Your task to perform on an android device: Open my contact list Image 0: 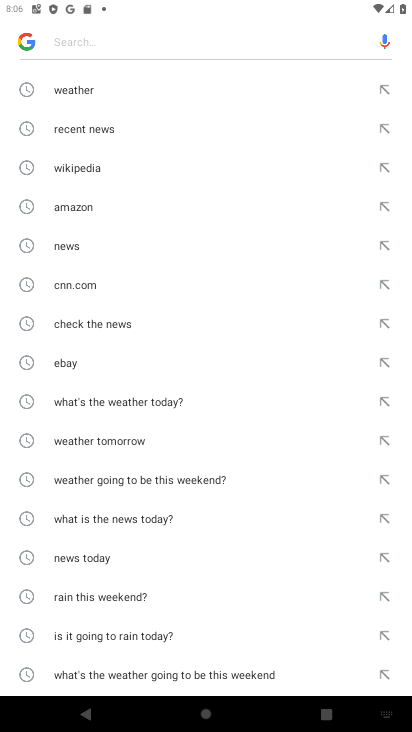
Step 0: press back button
Your task to perform on an android device: Open my contact list Image 1: 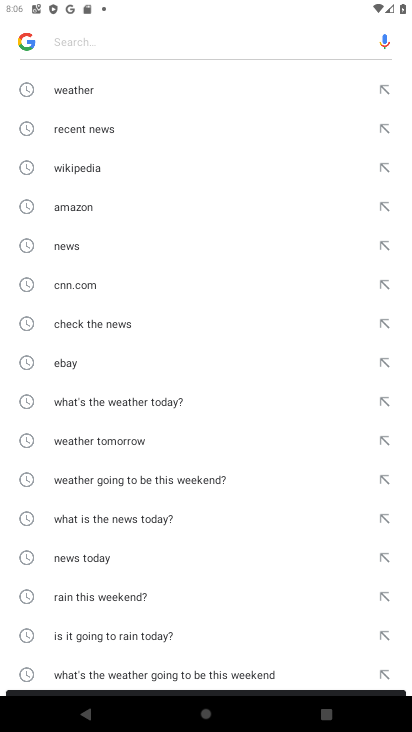
Step 1: press back button
Your task to perform on an android device: Open my contact list Image 2: 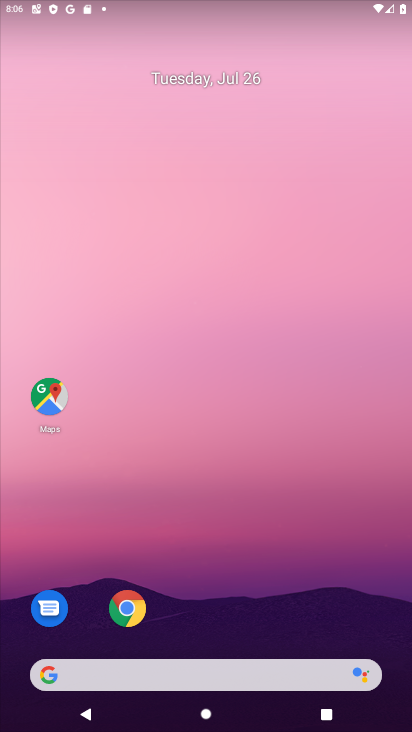
Step 2: drag from (276, 544) to (277, 263)
Your task to perform on an android device: Open my contact list Image 3: 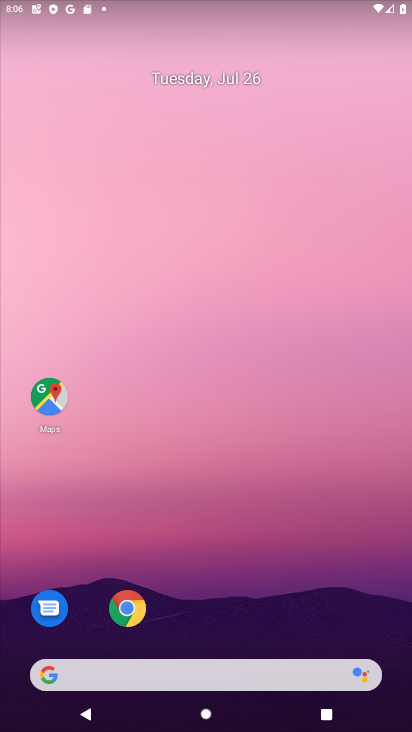
Step 3: drag from (255, 551) to (254, 208)
Your task to perform on an android device: Open my contact list Image 4: 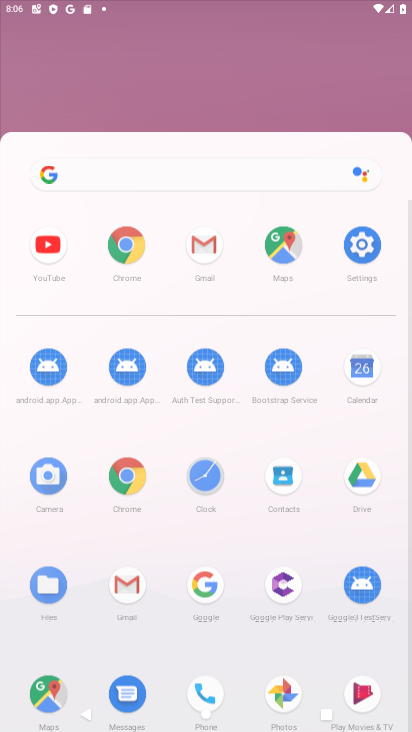
Step 4: drag from (297, 567) to (293, 87)
Your task to perform on an android device: Open my contact list Image 5: 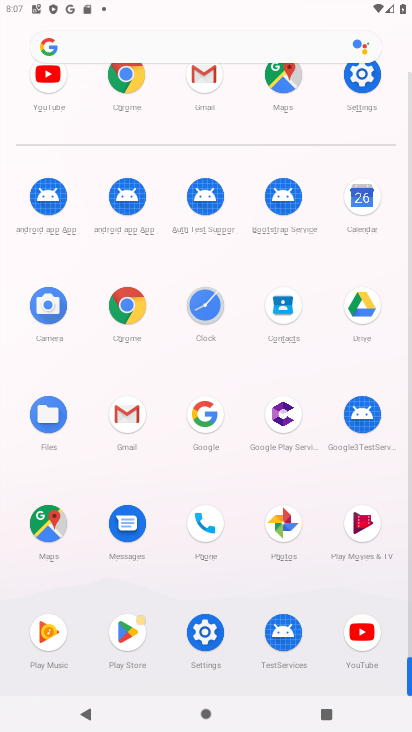
Step 5: click (282, 308)
Your task to perform on an android device: Open my contact list Image 6: 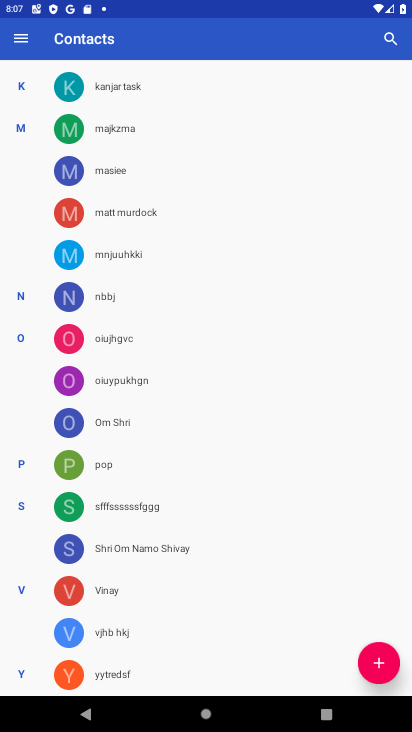
Step 6: task complete